Your task to perform on an android device: clear all cookies in the chrome app Image 0: 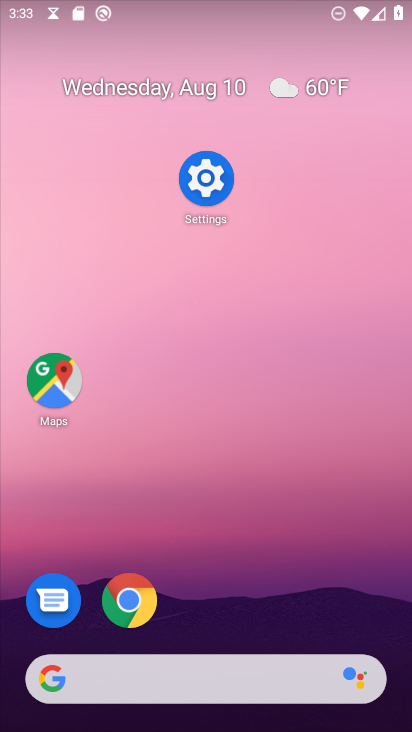
Step 0: press home button
Your task to perform on an android device: clear all cookies in the chrome app Image 1: 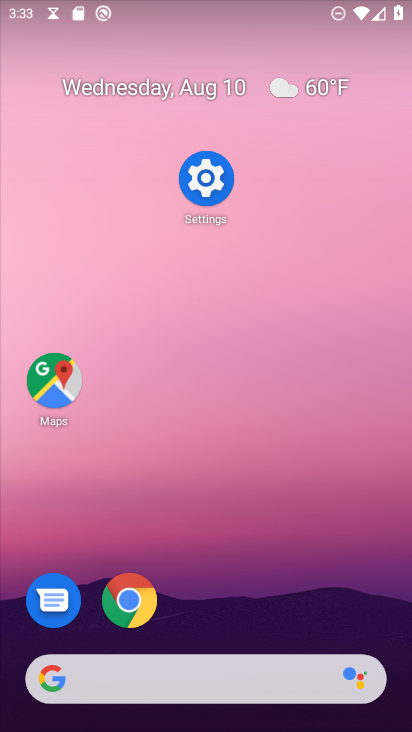
Step 1: click (137, 603)
Your task to perform on an android device: clear all cookies in the chrome app Image 2: 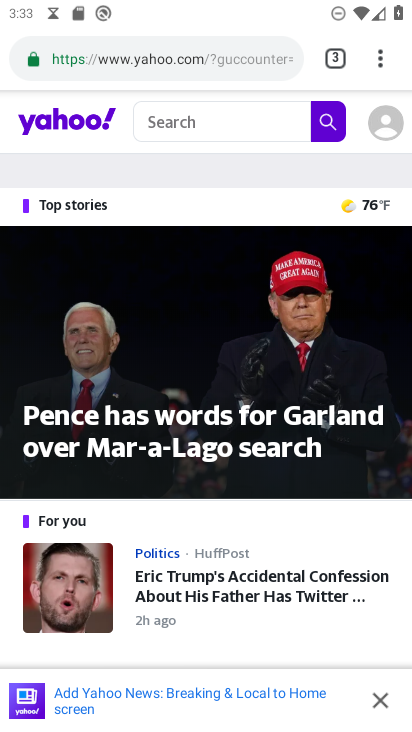
Step 2: drag from (382, 59) to (175, 628)
Your task to perform on an android device: clear all cookies in the chrome app Image 3: 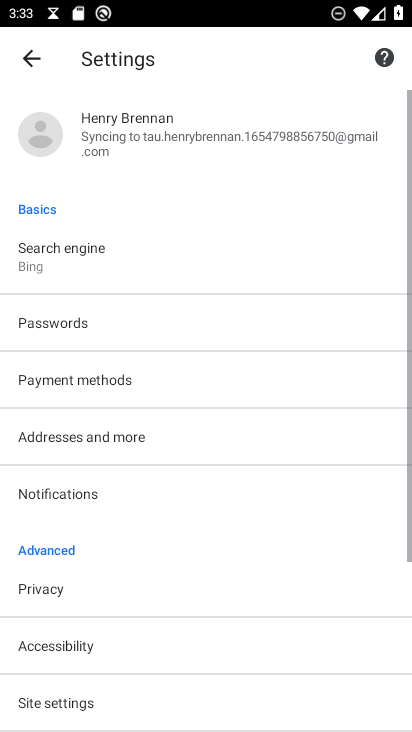
Step 3: drag from (260, 653) to (250, 504)
Your task to perform on an android device: clear all cookies in the chrome app Image 4: 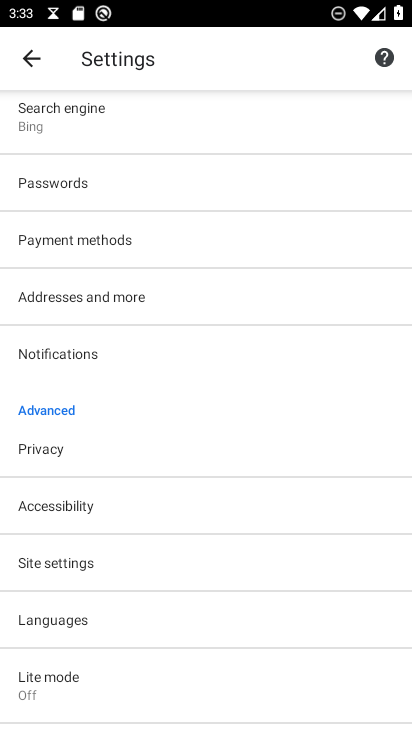
Step 4: click (40, 444)
Your task to perform on an android device: clear all cookies in the chrome app Image 5: 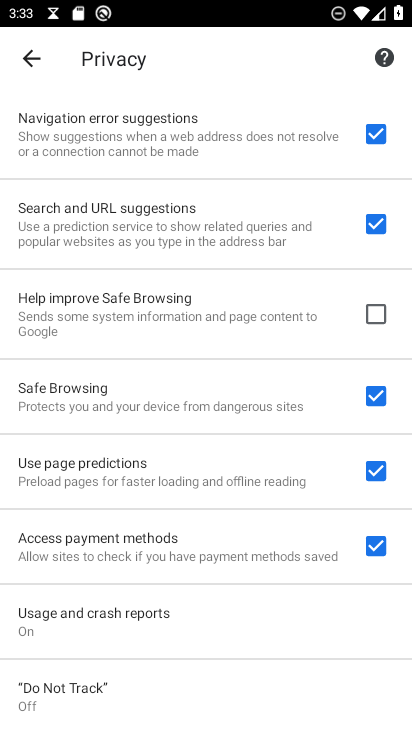
Step 5: drag from (253, 640) to (277, 116)
Your task to perform on an android device: clear all cookies in the chrome app Image 6: 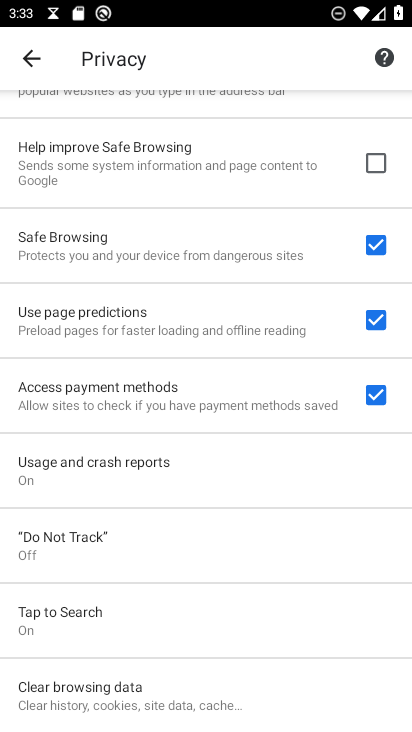
Step 6: click (63, 697)
Your task to perform on an android device: clear all cookies in the chrome app Image 7: 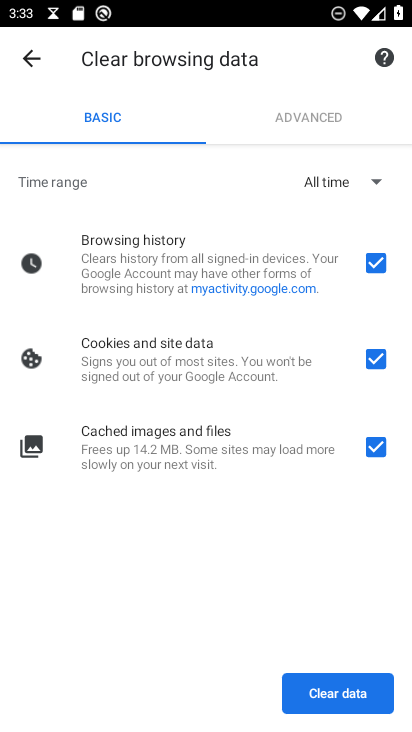
Step 7: click (377, 255)
Your task to perform on an android device: clear all cookies in the chrome app Image 8: 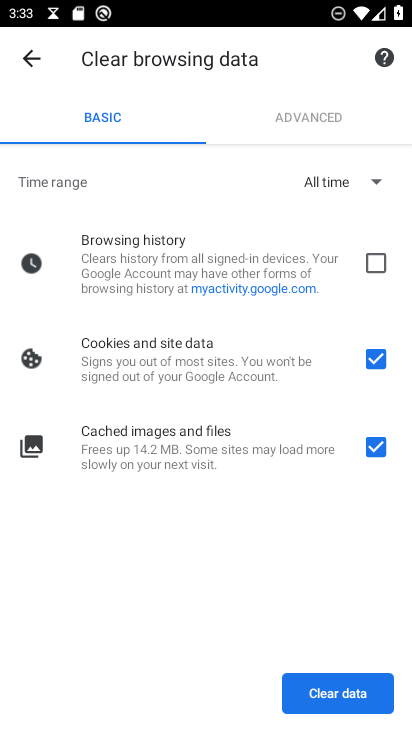
Step 8: click (386, 444)
Your task to perform on an android device: clear all cookies in the chrome app Image 9: 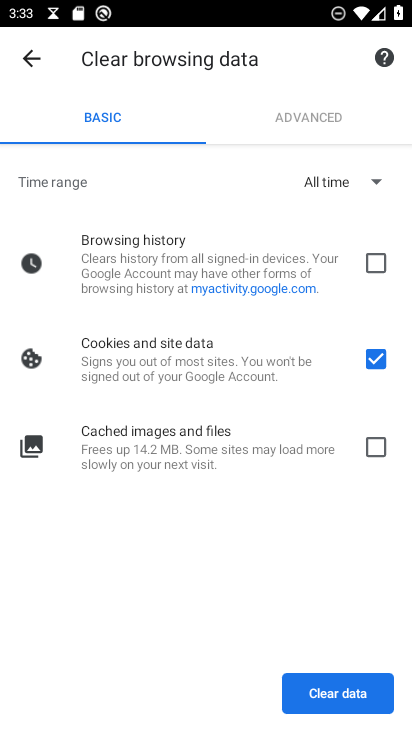
Step 9: click (349, 698)
Your task to perform on an android device: clear all cookies in the chrome app Image 10: 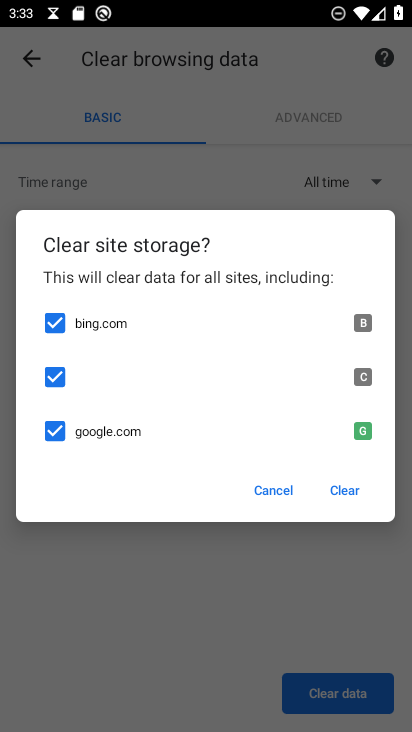
Step 10: click (346, 493)
Your task to perform on an android device: clear all cookies in the chrome app Image 11: 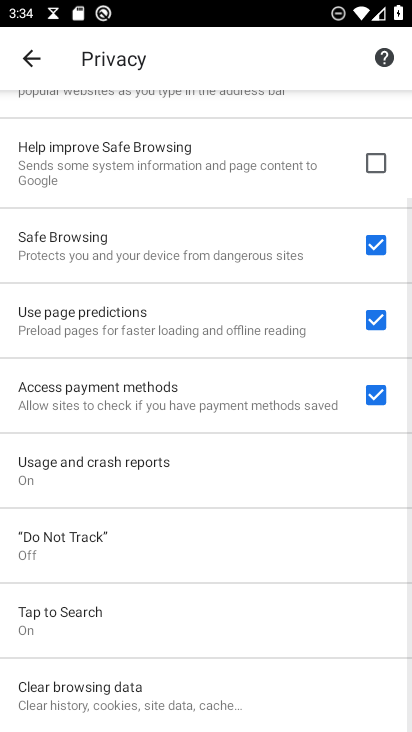
Step 11: task complete